Your task to perform on an android device: turn off data saver in the chrome app Image 0: 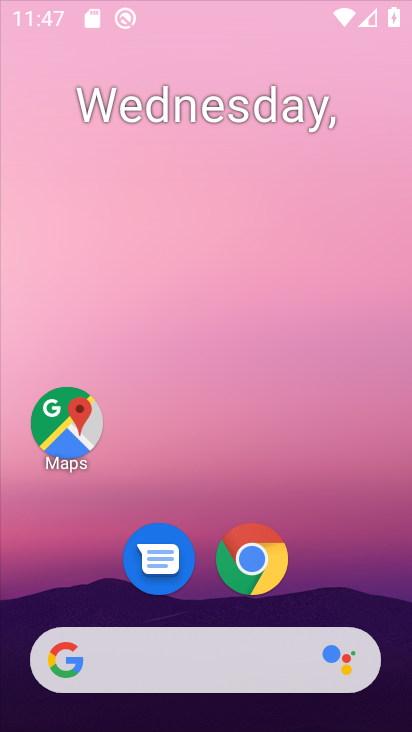
Step 0: click (214, 78)
Your task to perform on an android device: turn off data saver in the chrome app Image 1: 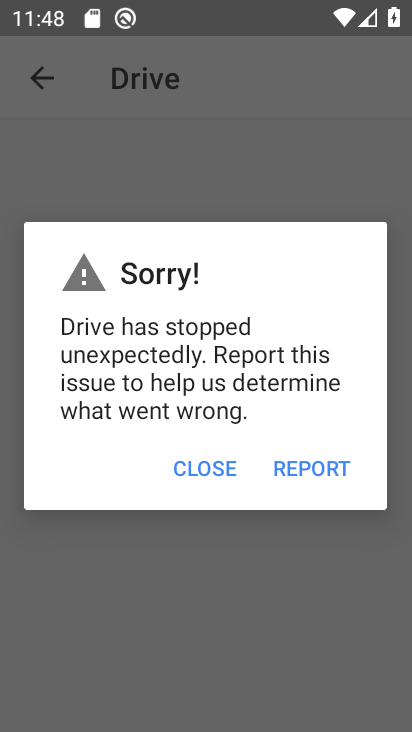
Step 1: press home button
Your task to perform on an android device: turn off data saver in the chrome app Image 2: 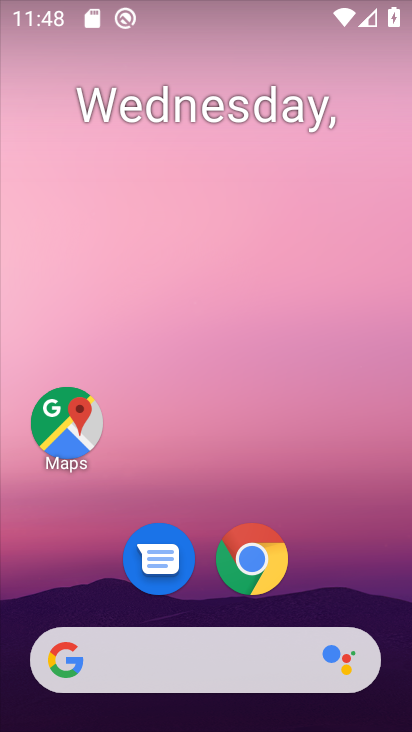
Step 2: click (241, 569)
Your task to perform on an android device: turn off data saver in the chrome app Image 3: 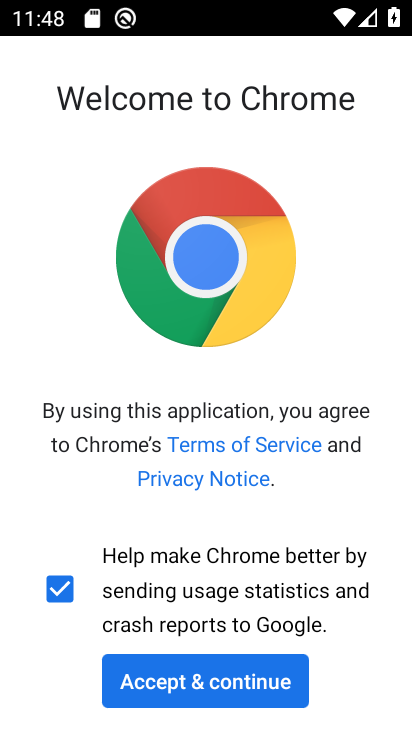
Step 3: click (205, 696)
Your task to perform on an android device: turn off data saver in the chrome app Image 4: 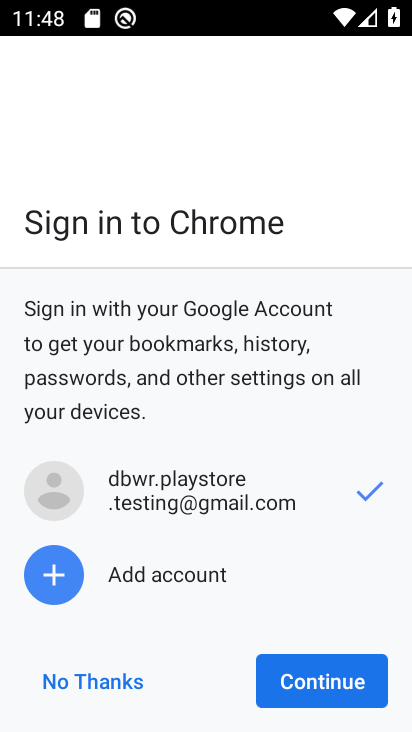
Step 4: click (283, 692)
Your task to perform on an android device: turn off data saver in the chrome app Image 5: 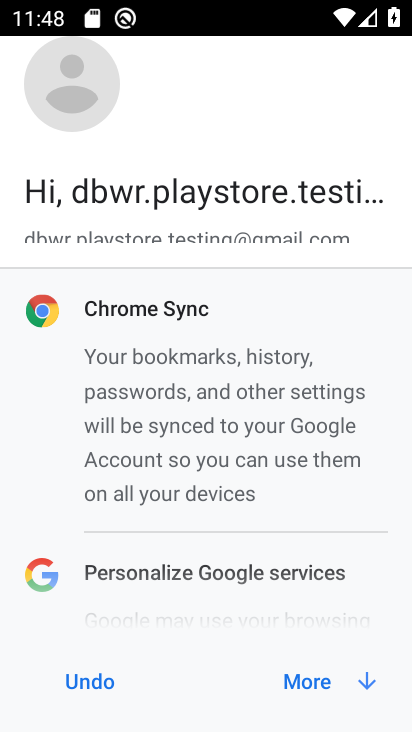
Step 5: click (314, 681)
Your task to perform on an android device: turn off data saver in the chrome app Image 6: 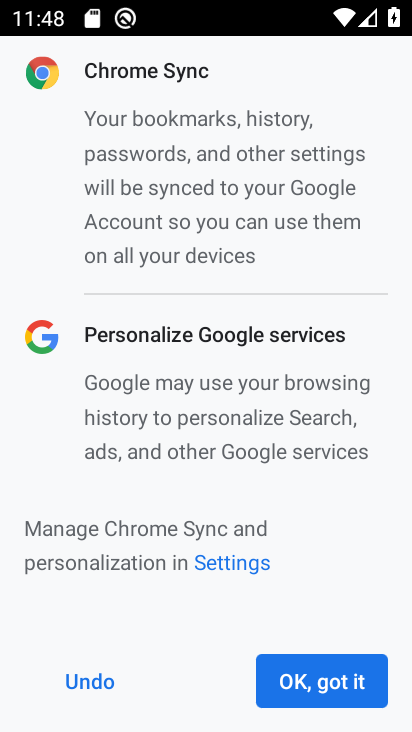
Step 6: click (314, 681)
Your task to perform on an android device: turn off data saver in the chrome app Image 7: 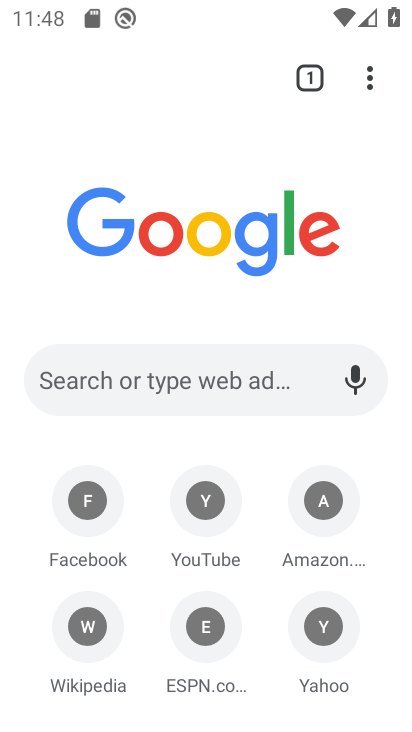
Step 7: drag from (369, 79) to (221, 614)
Your task to perform on an android device: turn off data saver in the chrome app Image 8: 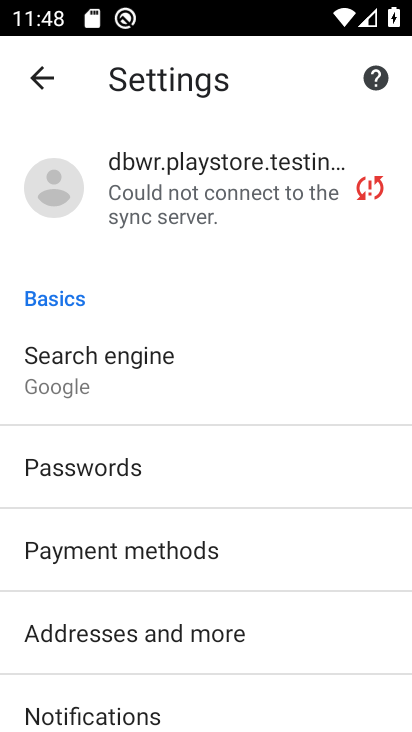
Step 8: drag from (189, 655) to (317, 237)
Your task to perform on an android device: turn off data saver in the chrome app Image 9: 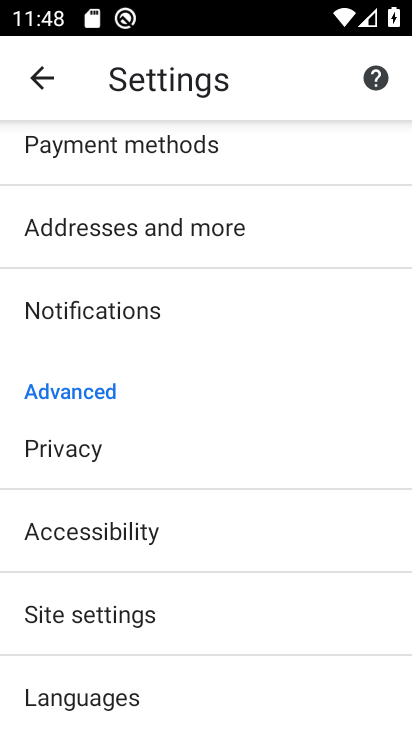
Step 9: drag from (193, 674) to (293, 373)
Your task to perform on an android device: turn off data saver in the chrome app Image 10: 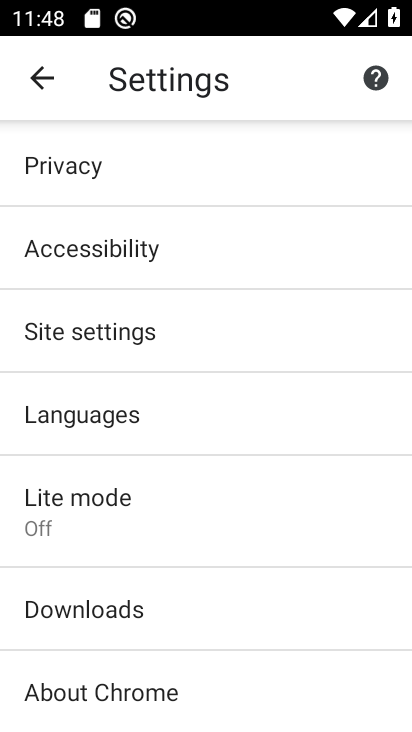
Step 10: click (180, 521)
Your task to perform on an android device: turn off data saver in the chrome app Image 11: 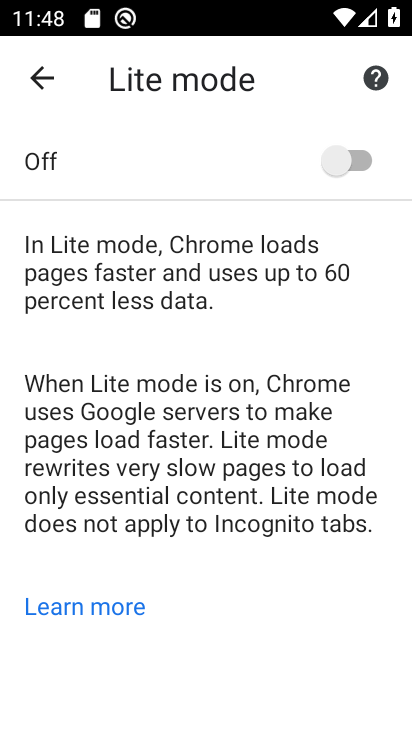
Step 11: task complete